Your task to perform on an android device: Open Google Maps Image 0: 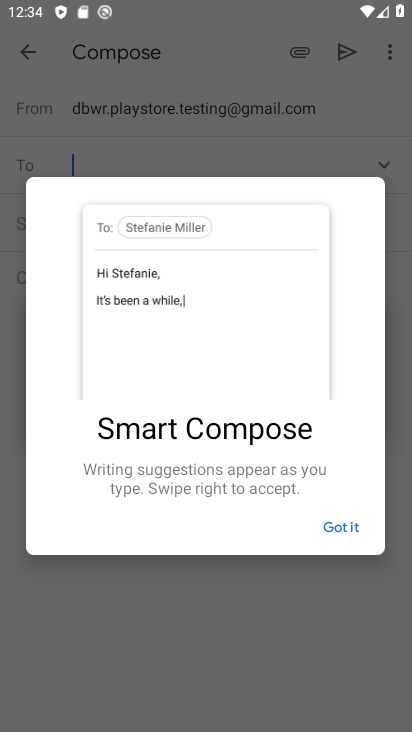
Step 0: press home button
Your task to perform on an android device: Open Google Maps Image 1: 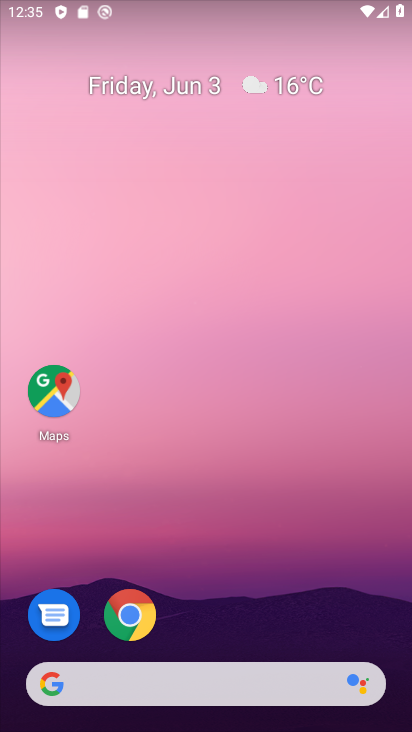
Step 1: click (41, 391)
Your task to perform on an android device: Open Google Maps Image 2: 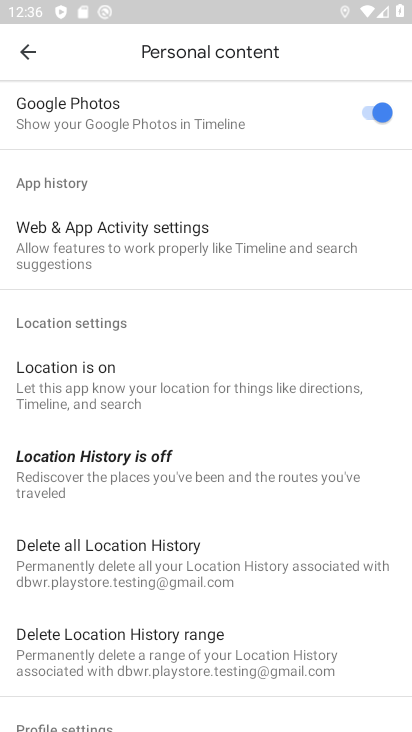
Step 2: click (25, 52)
Your task to perform on an android device: Open Google Maps Image 3: 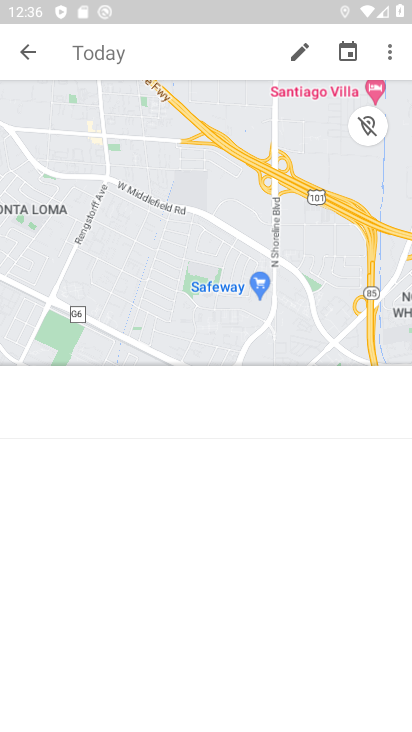
Step 3: task complete